Your task to perform on an android device: toggle data saver in the chrome app Image 0: 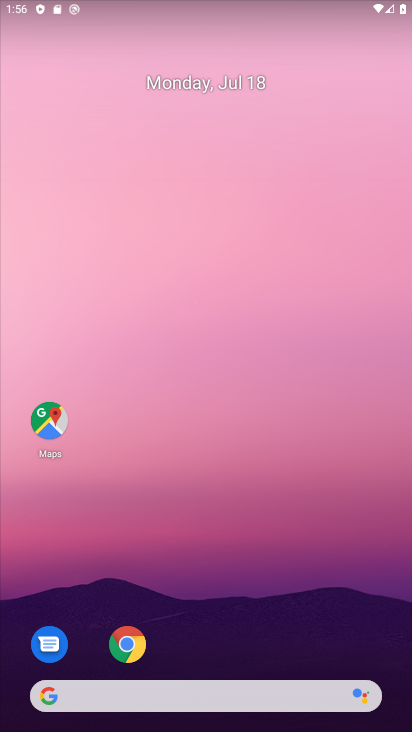
Step 0: drag from (328, 690) to (289, 309)
Your task to perform on an android device: toggle data saver in the chrome app Image 1: 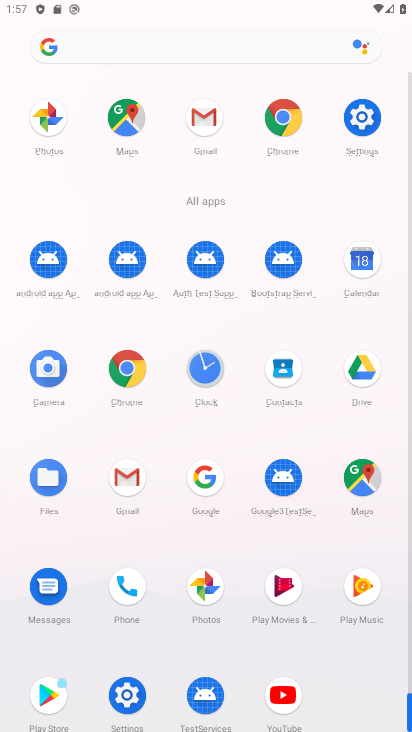
Step 1: click (286, 118)
Your task to perform on an android device: toggle data saver in the chrome app Image 2: 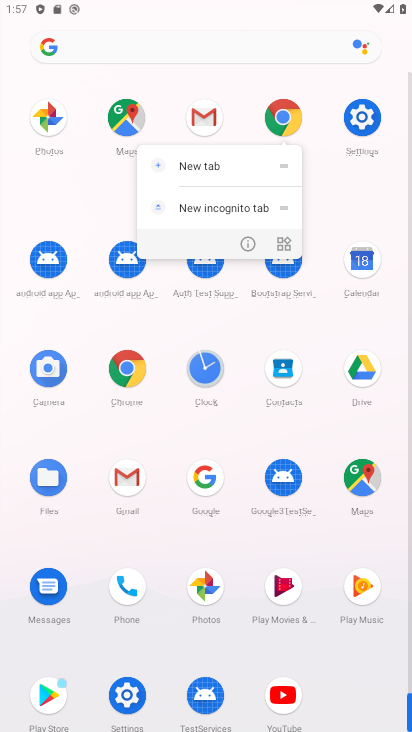
Step 2: click (286, 118)
Your task to perform on an android device: toggle data saver in the chrome app Image 3: 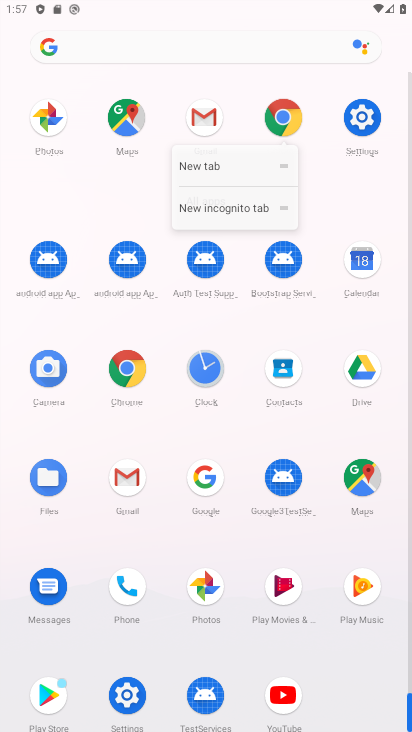
Step 3: click (286, 118)
Your task to perform on an android device: toggle data saver in the chrome app Image 4: 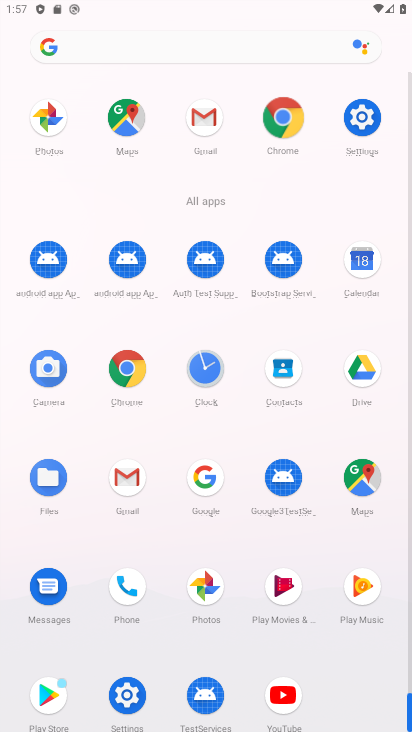
Step 4: click (286, 118)
Your task to perform on an android device: toggle data saver in the chrome app Image 5: 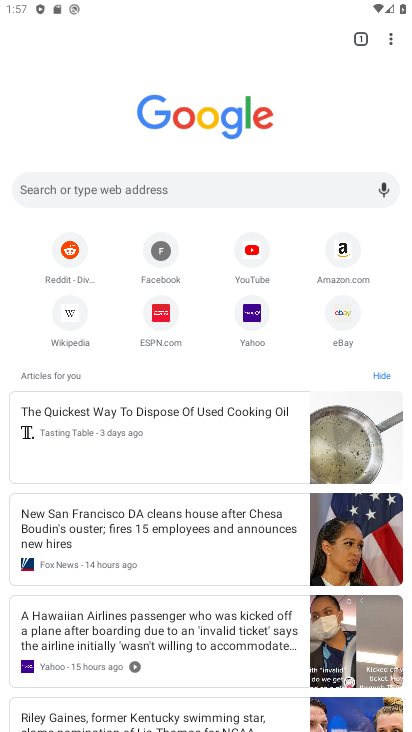
Step 5: drag from (390, 33) to (251, 377)
Your task to perform on an android device: toggle data saver in the chrome app Image 6: 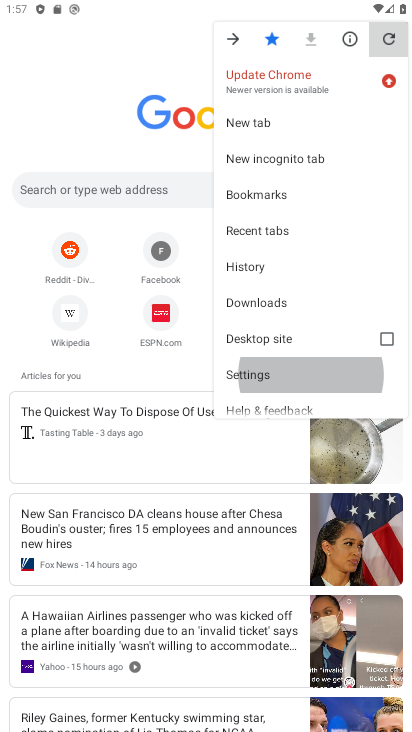
Step 6: click (257, 368)
Your task to perform on an android device: toggle data saver in the chrome app Image 7: 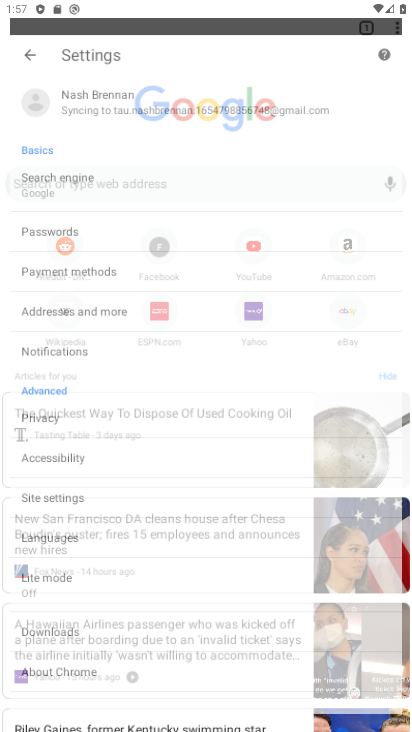
Step 7: click (257, 368)
Your task to perform on an android device: toggle data saver in the chrome app Image 8: 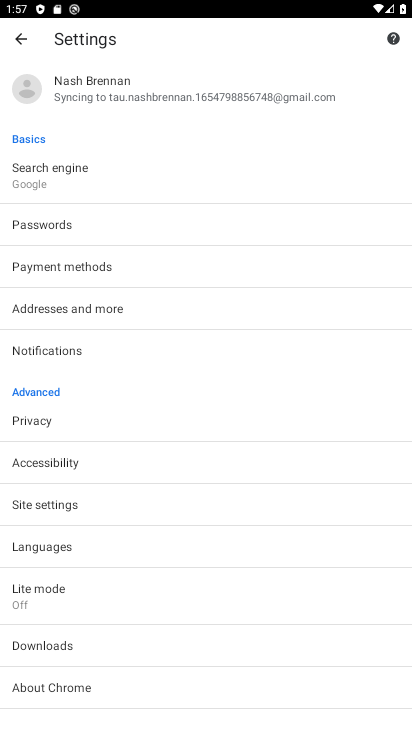
Step 8: click (258, 369)
Your task to perform on an android device: toggle data saver in the chrome app Image 9: 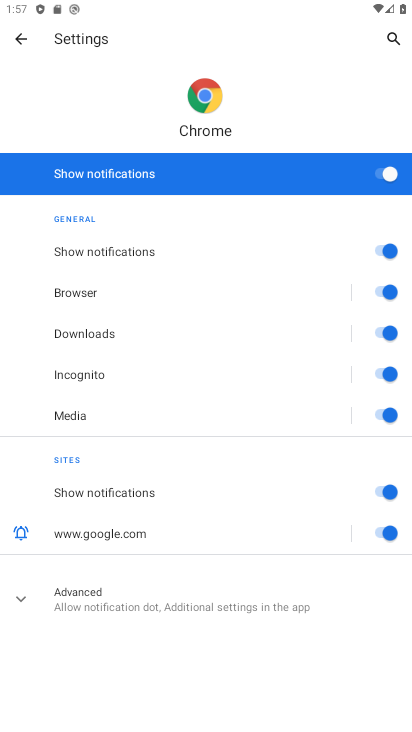
Step 9: click (22, 35)
Your task to perform on an android device: toggle data saver in the chrome app Image 10: 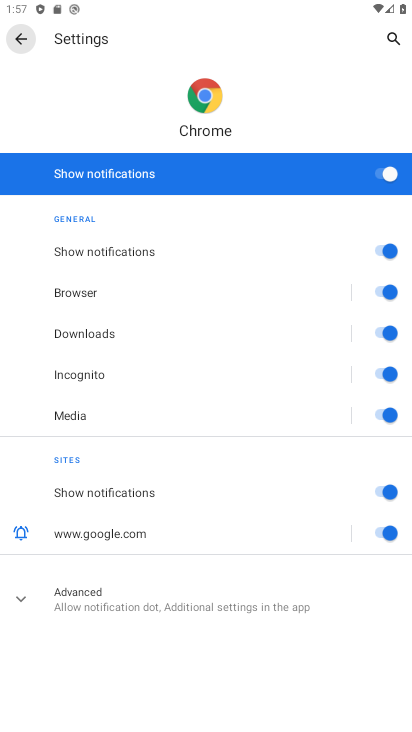
Step 10: click (22, 35)
Your task to perform on an android device: toggle data saver in the chrome app Image 11: 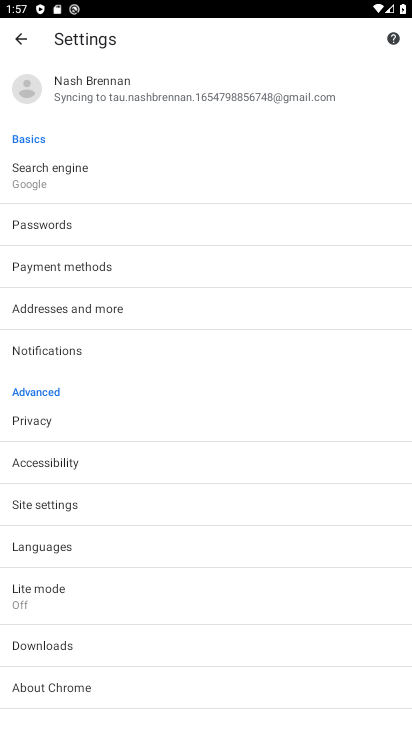
Step 11: click (74, 591)
Your task to perform on an android device: toggle data saver in the chrome app Image 12: 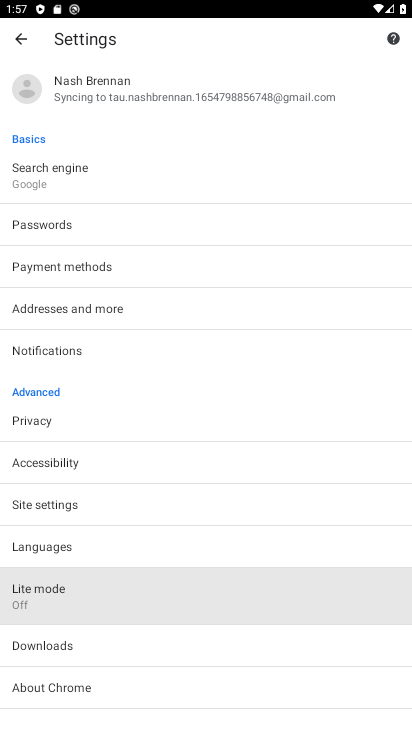
Step 12: click (70, 590)
Your task to perform on an android device: toggle data saver in the chrome app Image 13: 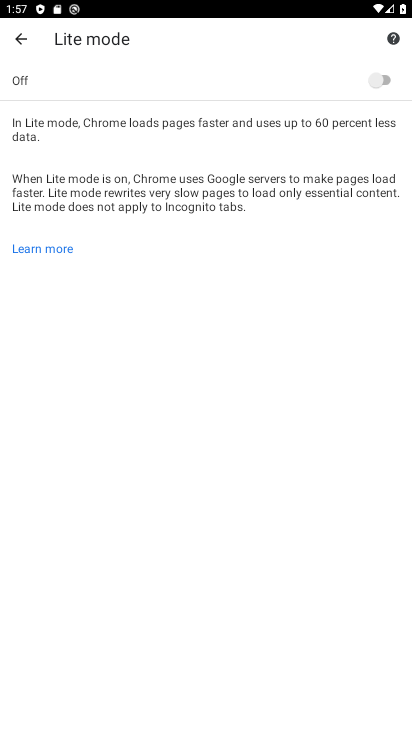
Step 13: click (70, 590)
Your task to perform on an android device: toggle data saver in the chrome app Image 14: 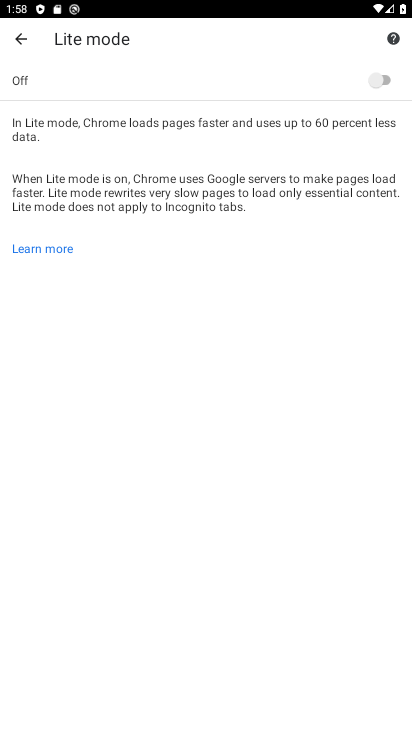
Step 14: click (381, 83)
Your task to perform on an android device: toggle data saver in the chrome app Image 15: 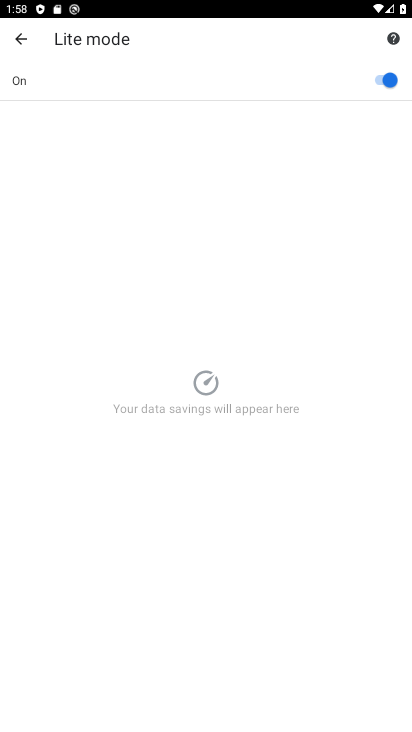
Step 15: task complete